Your task to perform on an android device: Find coffee shops on Maps Image 0: 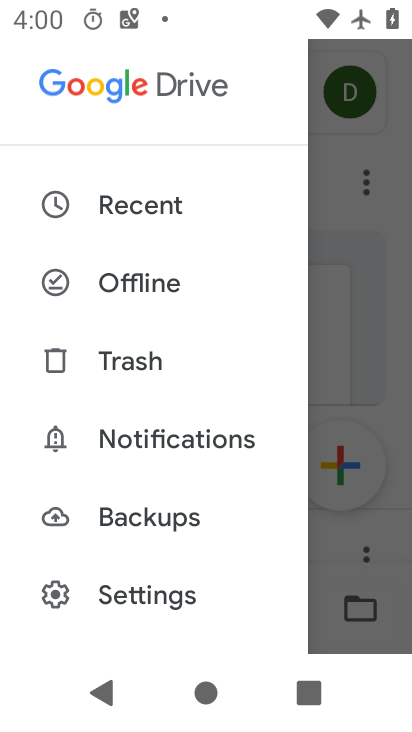
Step 0: drag from (174, 559) to (200, 205)
Your task to perform on an android device: Find coffee shops on Maps Image 1: 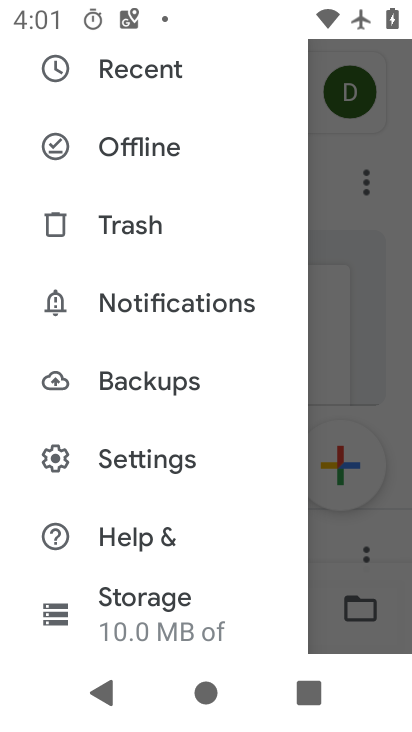
Step 1: drag from (144, 551) to (193, 324)
Your task to perform on an android device: Find coffee shops on Maps Image 2: 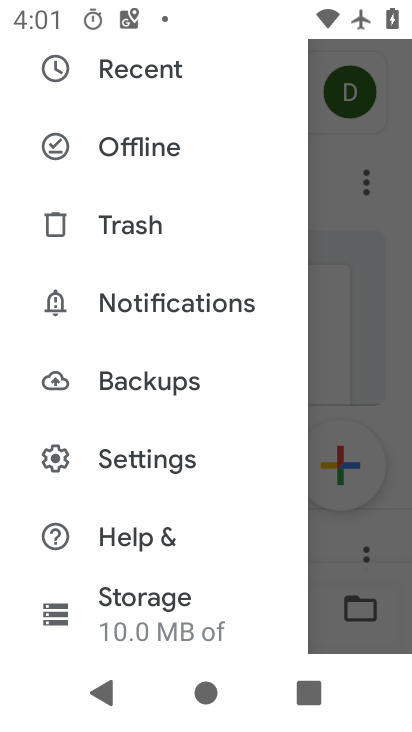
Step 2: press home button
Your task to perform on an android device: Find coffee shops on Maps Image 3: 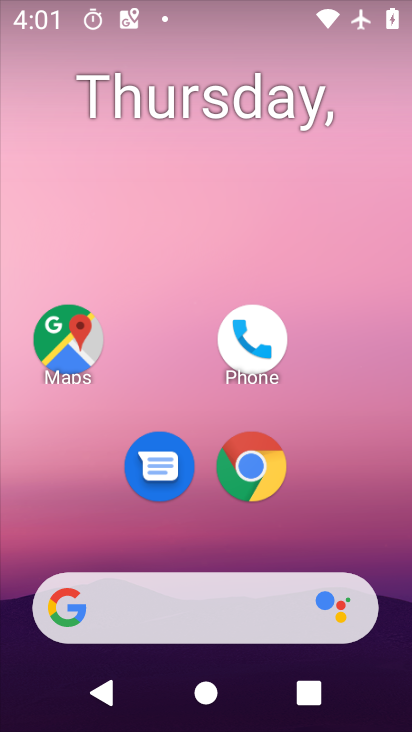
Step 3: drag from (213, 612) to (258, 263)
Your task to perform on an android device: Find coffee shops on Maps Image 4: 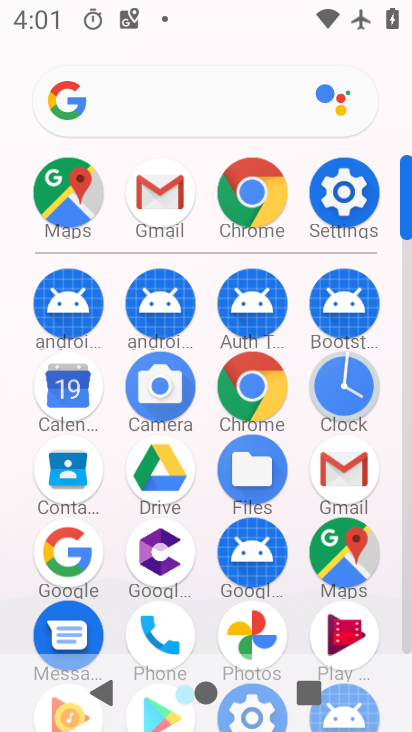
Step 4: click (333, 567)
Your task to perform on an android device: Find coffee shops on Maps Image 5: 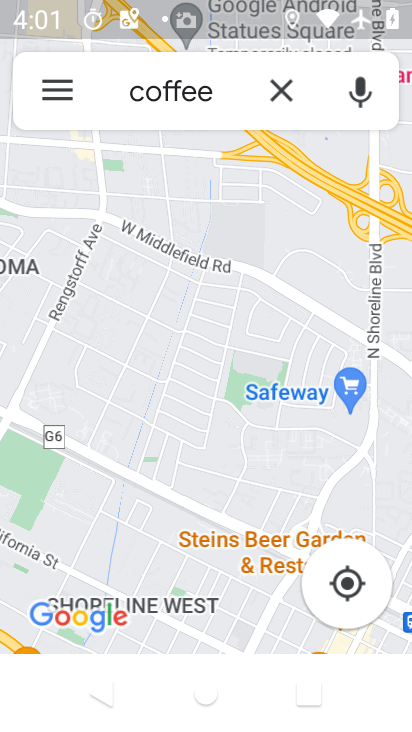
Step 5: task complete